Your task to perform on an android device: open app "Google Photos" (install if not already installed) Image 0: 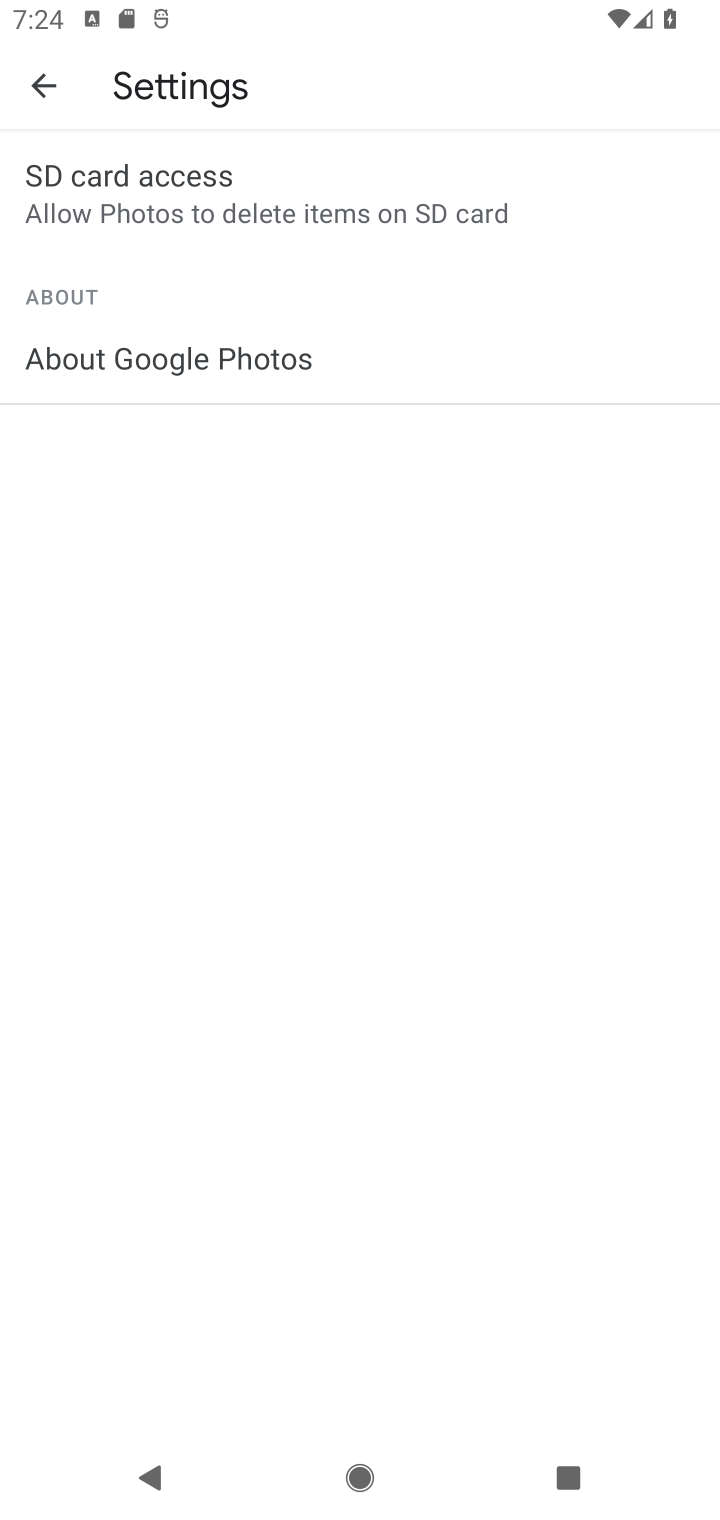
Step 0: press home button
Your task to perform on an android device: open app "Google Photos" (install if not already installed) Image 1: 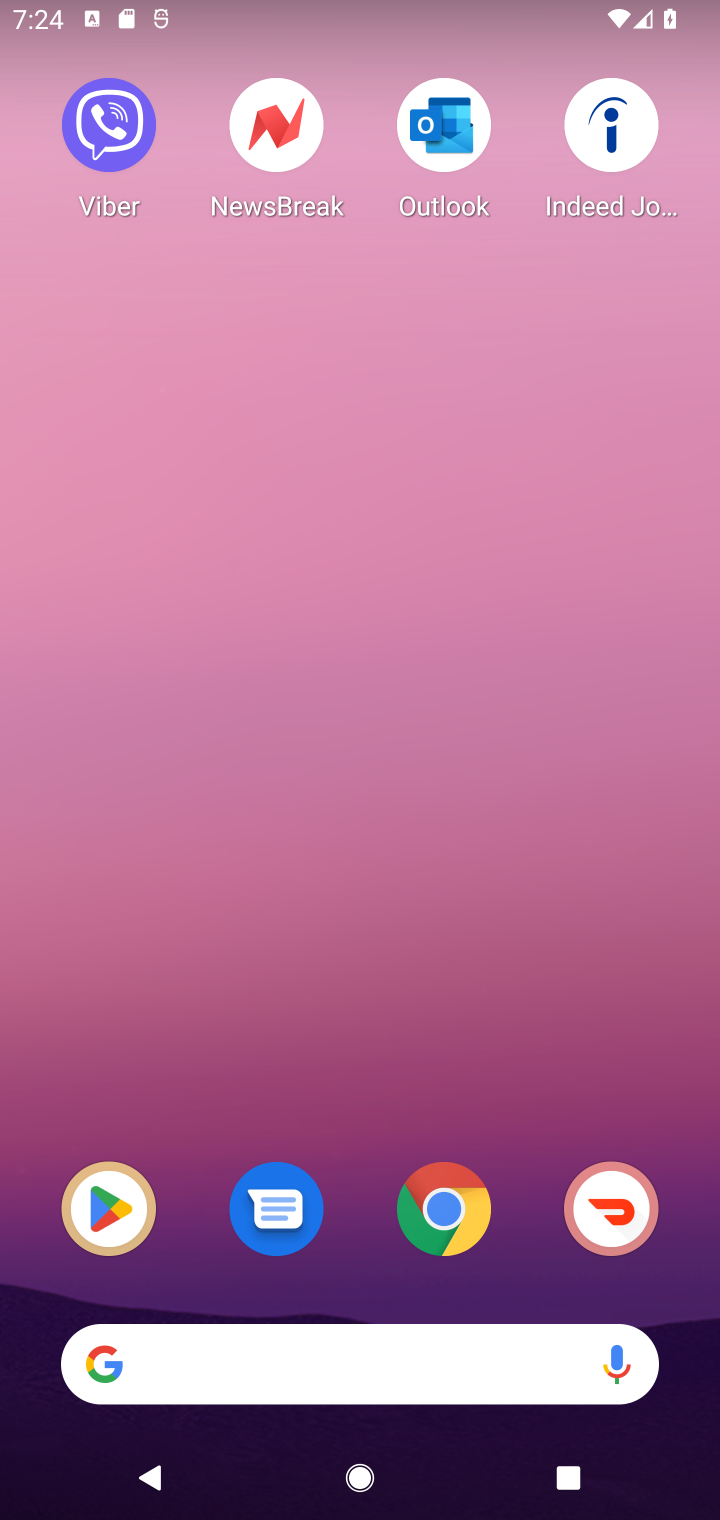
Step 1: click (124, 1219)
Your task to perform on an android device: open app "Google Photos" (install if not already installed) Image 2: 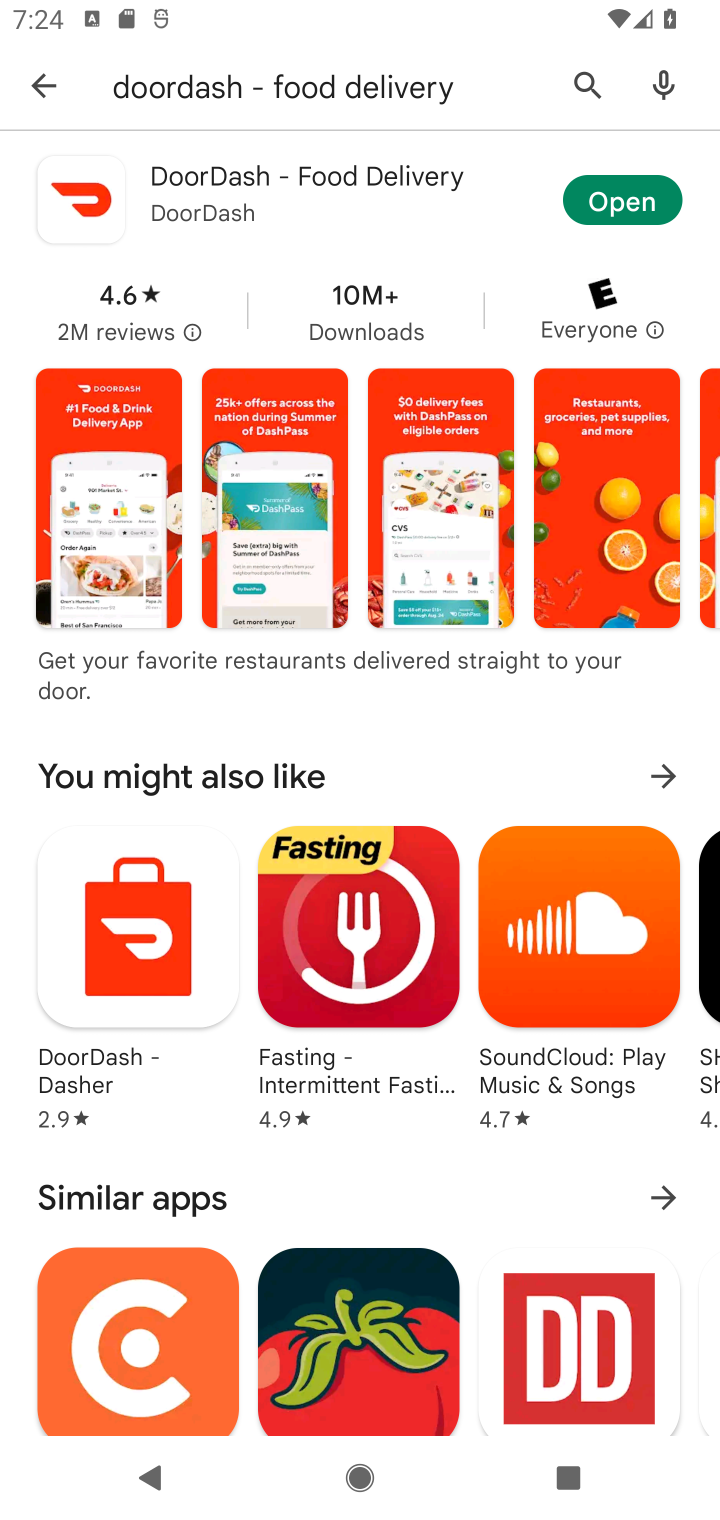
Step 2: click (571, 78)
Your task to perform on an android device: open app "Google Photos" (install if not already installed) Image 3: 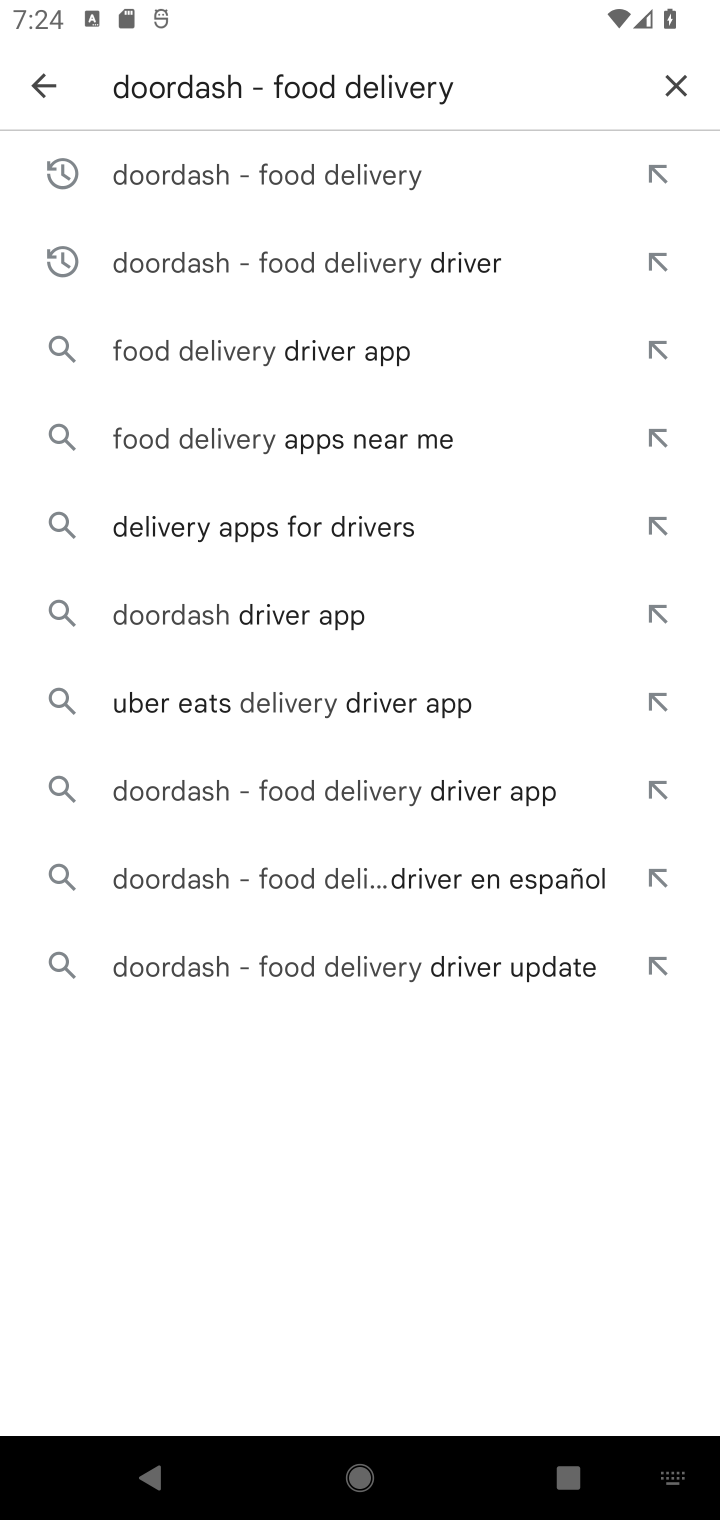
Step 3: click (685, 85)
Your task to perform on an android device: open app "Google Photos" (install if not already installed) Image 4: 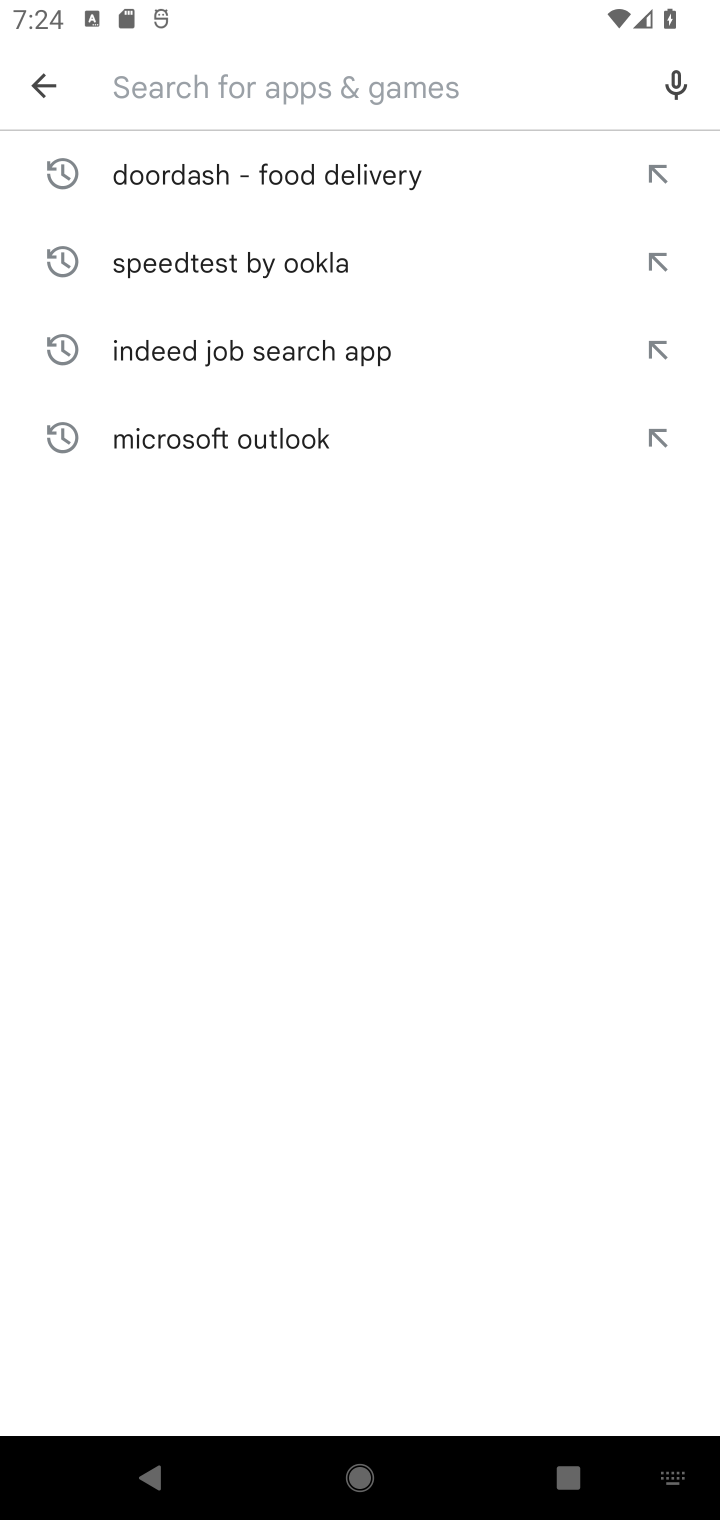
Step 4: type "Google Photos"
Your task to perform on an android device: open app "Google Photos" (install if not already installed) Image 5: 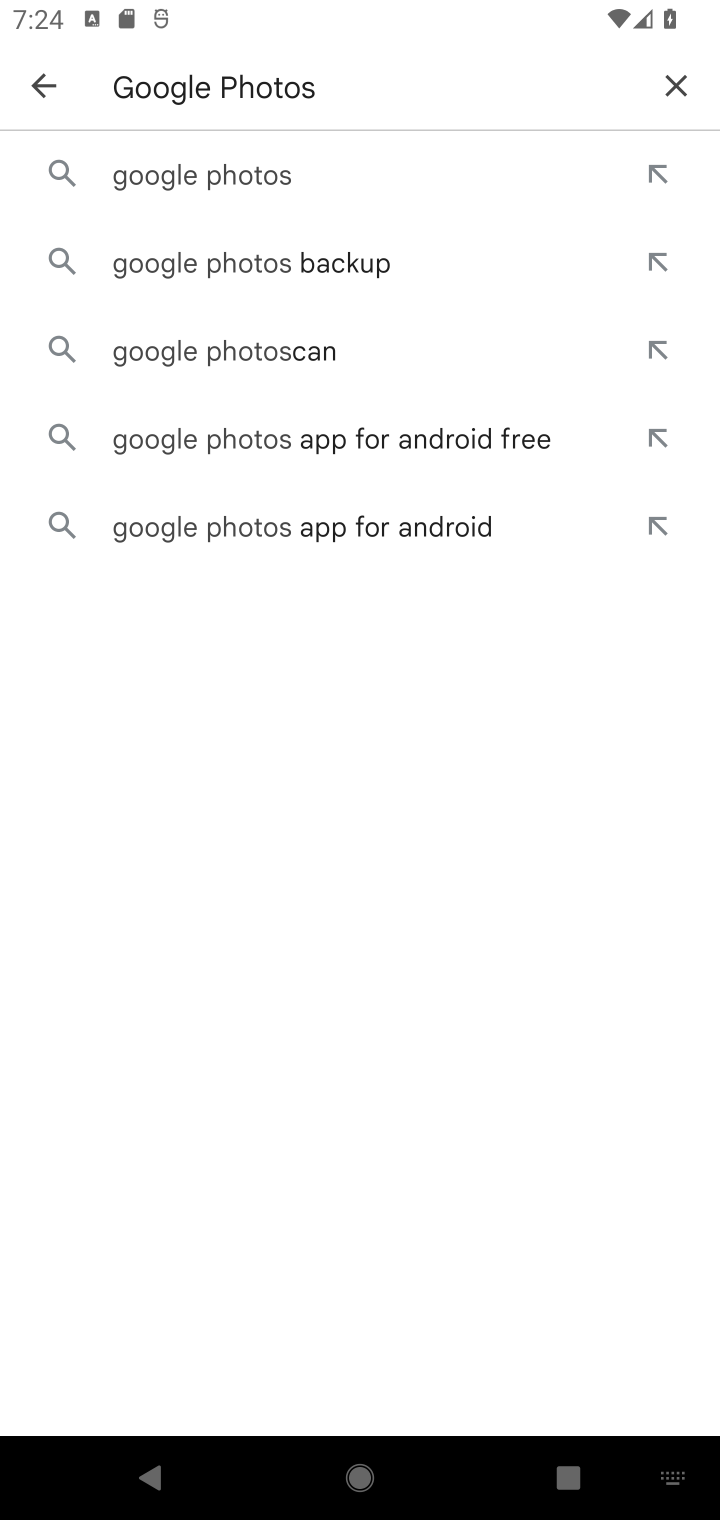
Step 5: click (220, 190)
Your task to perform on an android device: open app "Google Photos" (install if not already installed) Image 6: 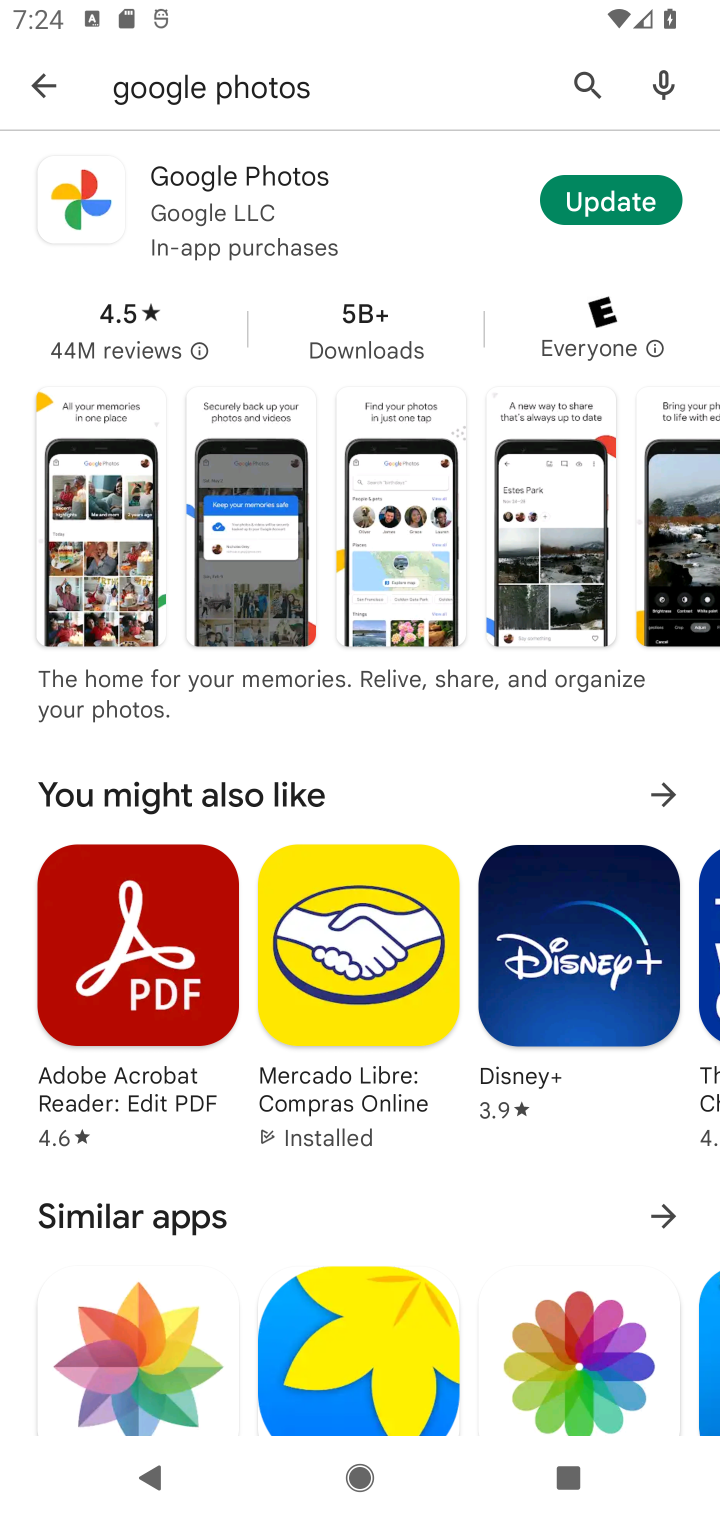
Step 6: click (129, 201)
Your task to perform on an android device: open app "Google Photos" (install if not already installed) Image 7: 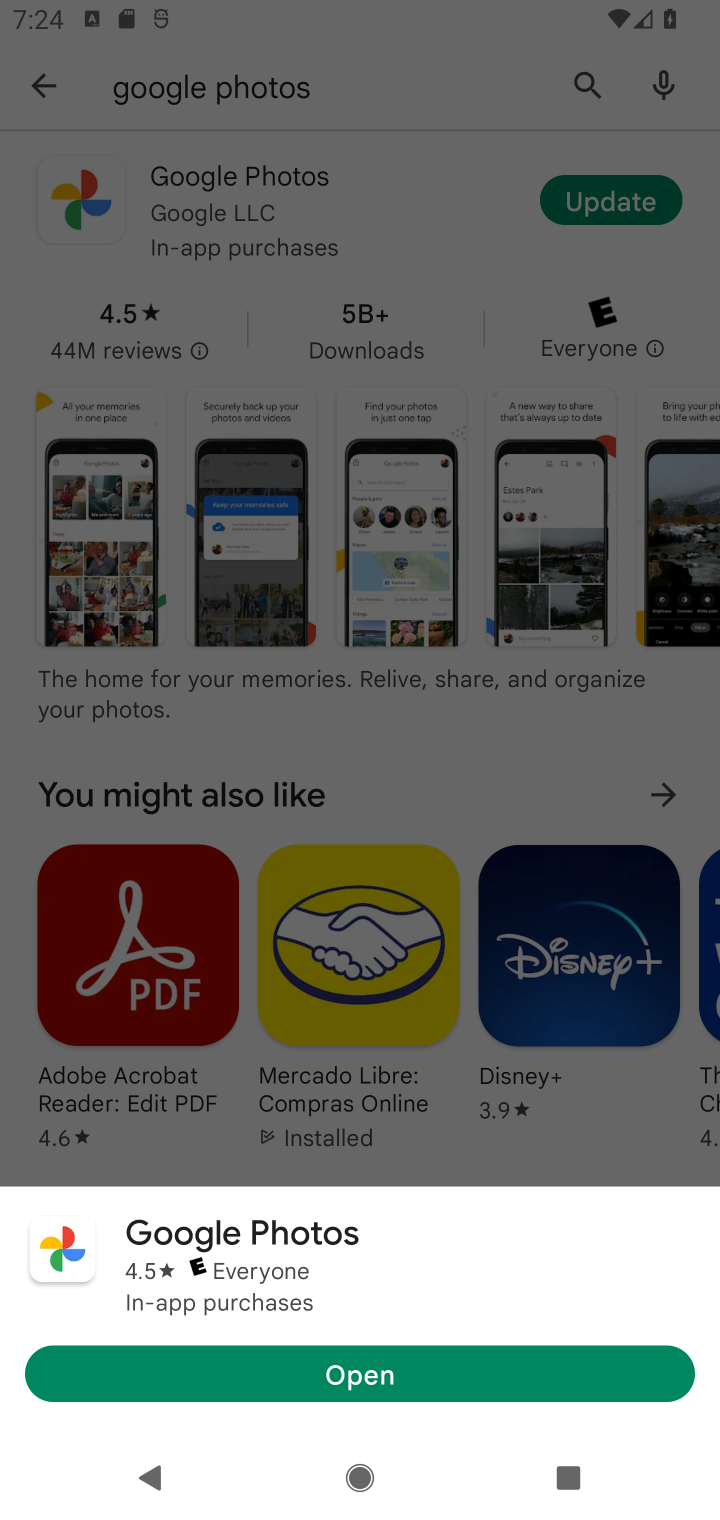
Step 7: click (435, 1377)
Your task to perform on an android device: open app "Google Photos" (install if not already installed) Image 8: 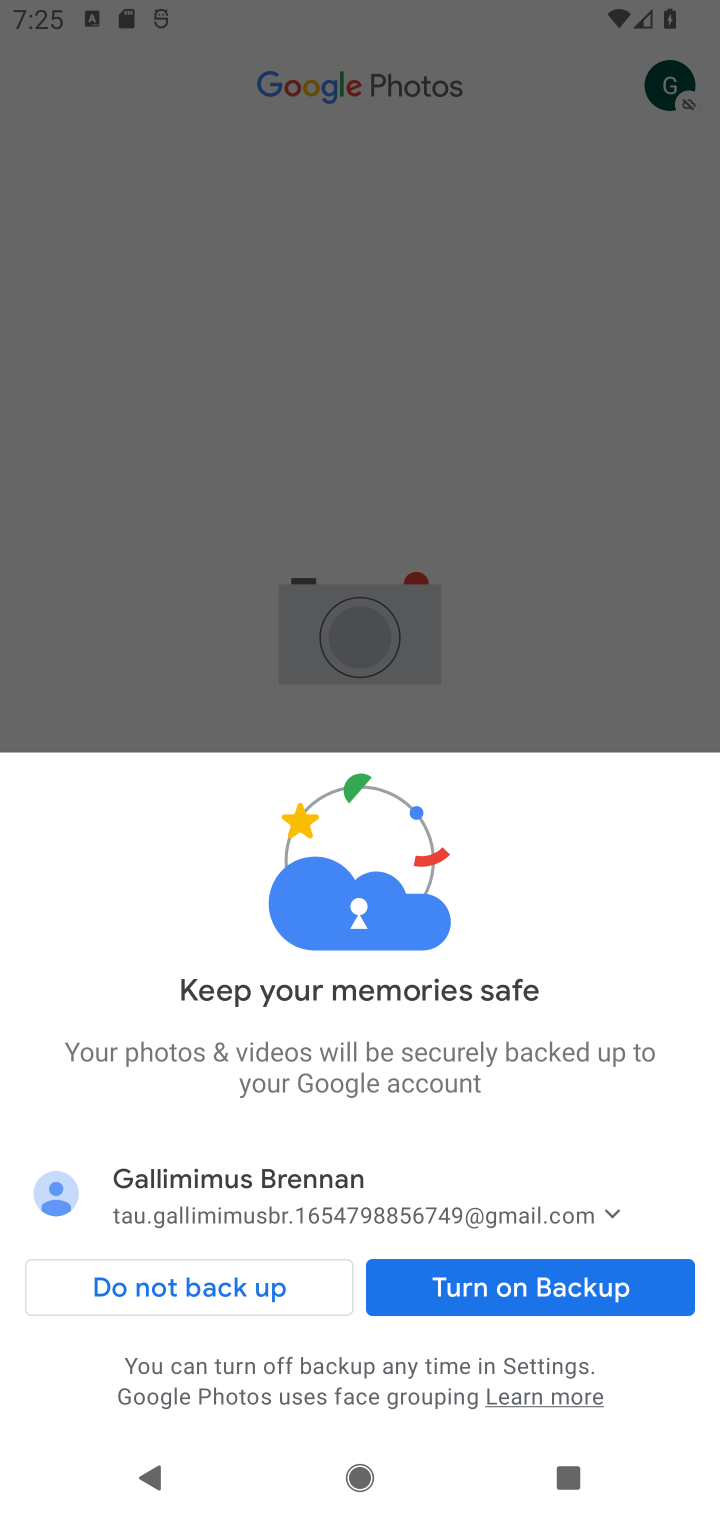
Step 8: click (253, 1296)
Your task to perform on an android device: open app "Google Photos" (install if not already installed) Image 9: 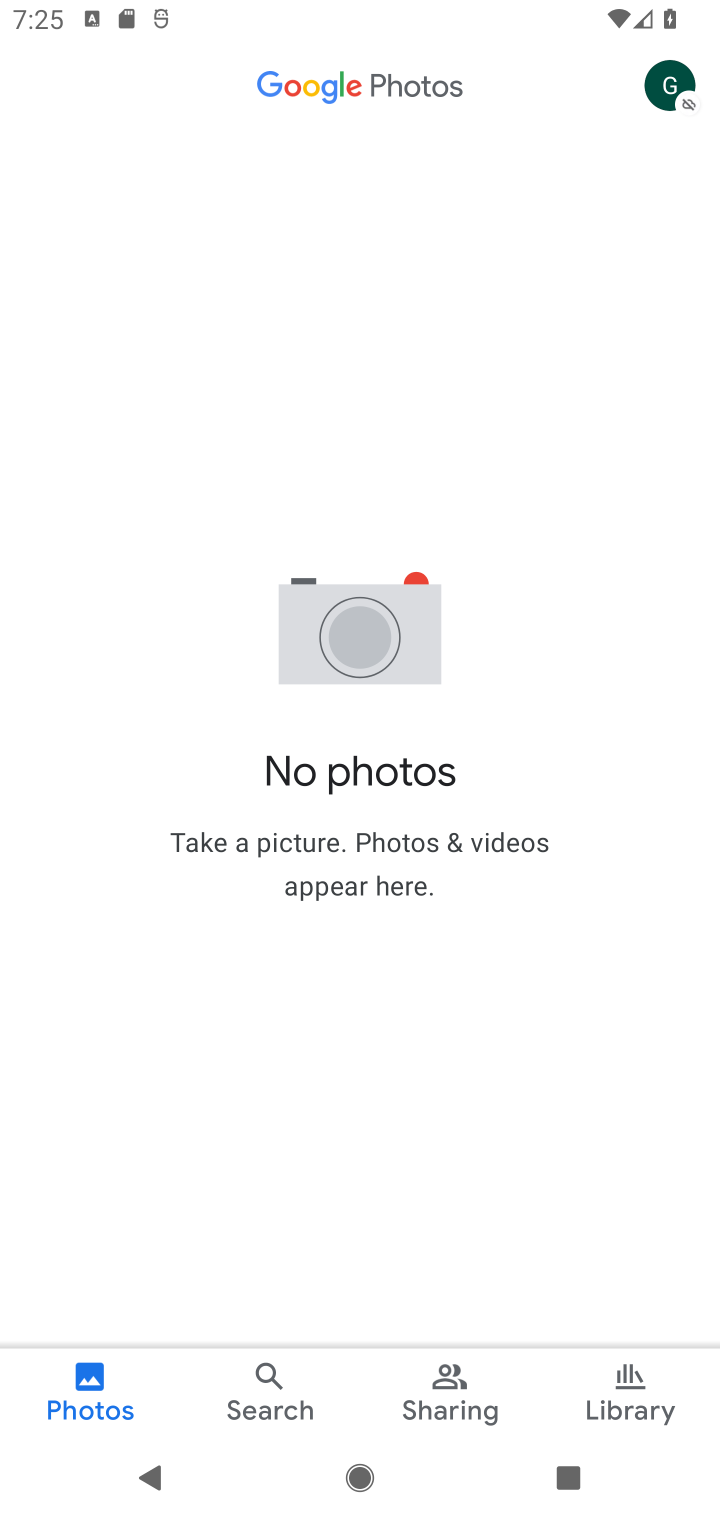
Step 9: task complete